Your task to perform on an android device: clear history in the chrome app Image 0: 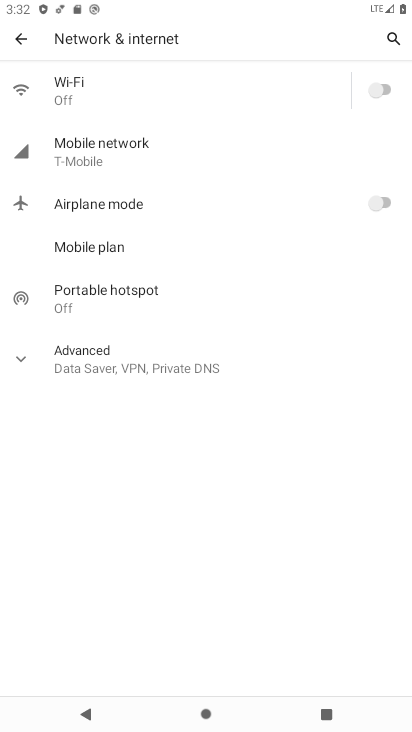
Step 0: press home button
Your task to perform on an android device: clear history in the chrome app Image 1: 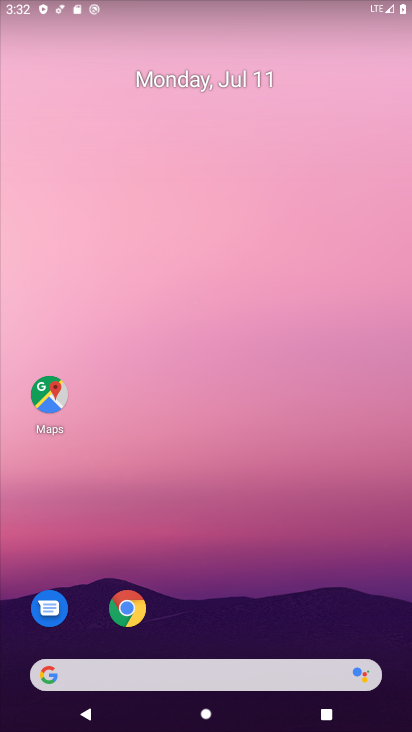
Step 1: drag from (217, 639) to (128, 29)
Your task to perform on an android device: clear history in the chrome app Image 2: 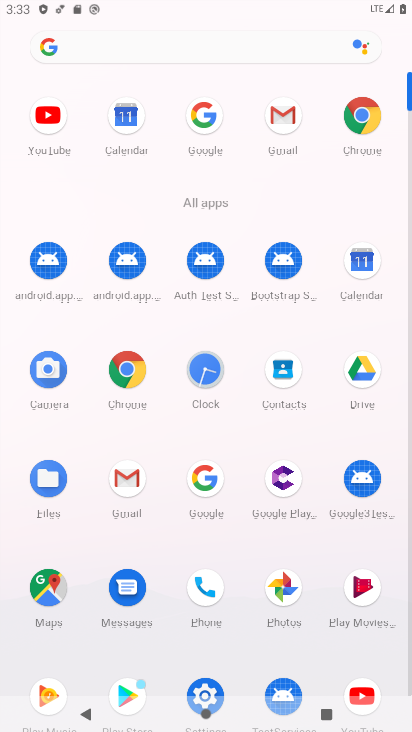
Step 2: click (363, 123)
Your task to perform on an android device: clear history in the chrome app Image 3: 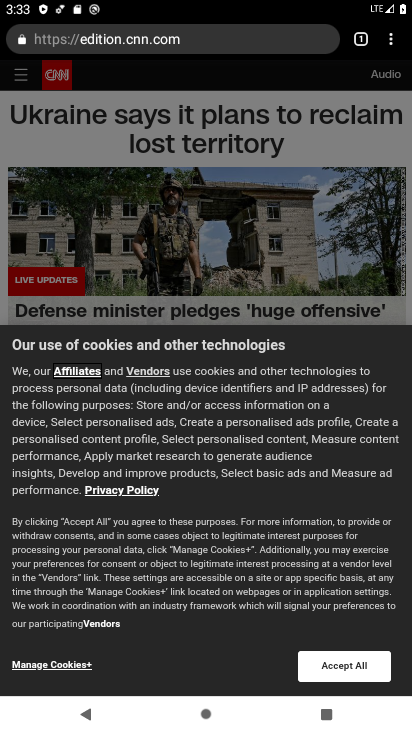
Step 3: click (396, 46)
Your task to perform on an android device: clear history in the chrome app Image 4: 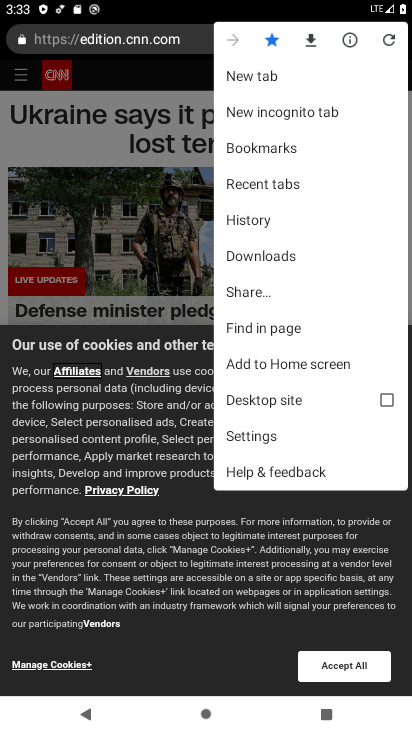
Step 4: click (265, 220)
Your task to perform on an android device: clear history in the chrome app Image 5: 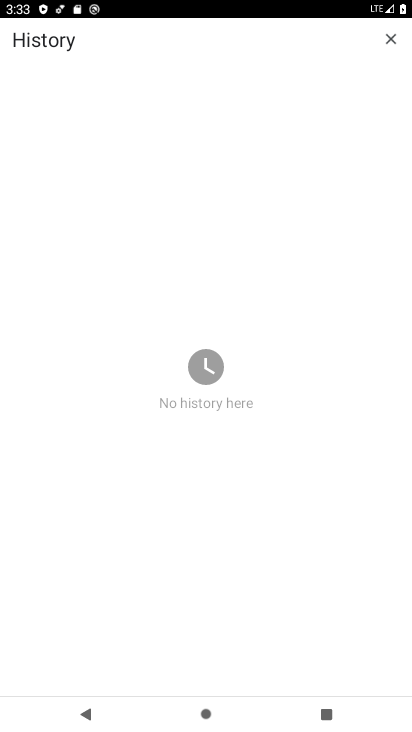
Step 5: task complete